Your task to perform on an android device: Open calendar and show me the first week of next month Image 0: 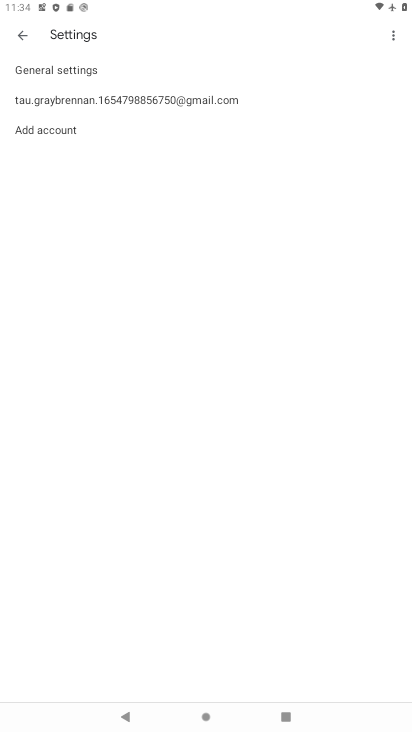
Step 0: press home button
Your task to perform on an android device: Open calendar and show me the first week of next month Image 1: 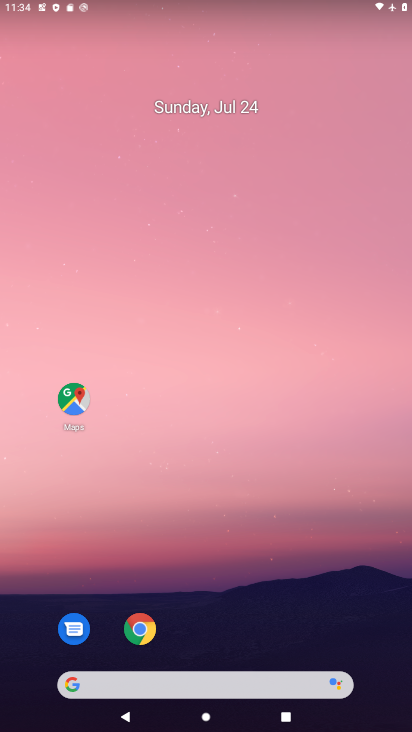
Step 1: drag from (232, 613) to (347, 1)
Your task to perform on an android device: Open calendar and show me the first week of next month Image 2: 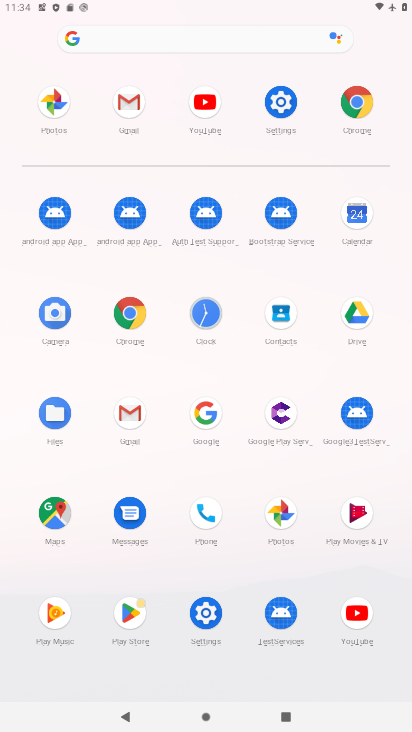
Step 2: click (347, 212)
Your task to perform on an android device: Open calendar and show me the first week of next month Image 3: 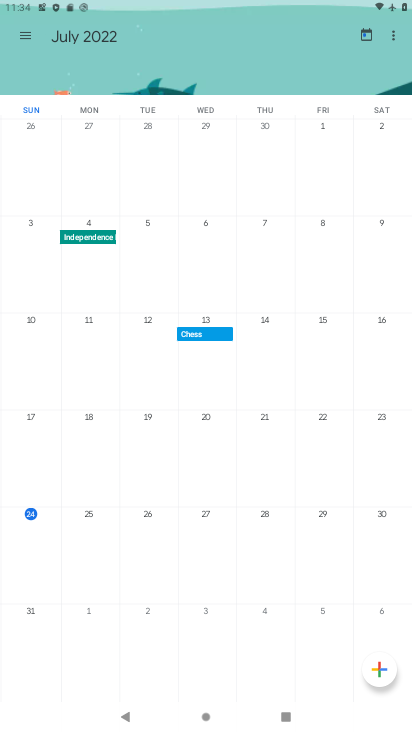
Step 3: task complete